Your task to perform on an android device: open the mobile data screen to see how much data has been used Image 0: 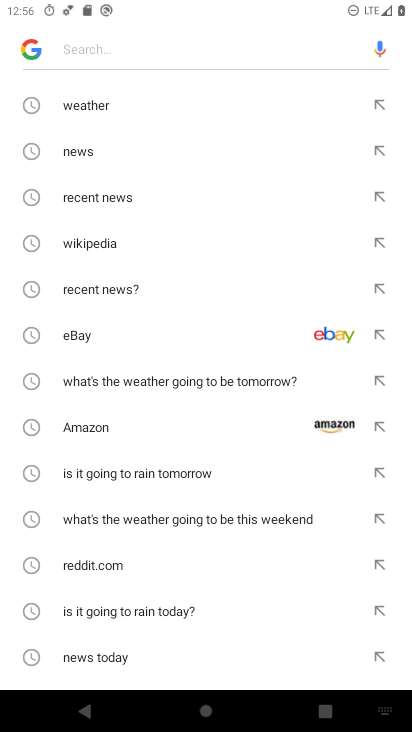
Step 0: press home button
Your task to perform on an android device: open the mobile data screen to see how much data has been used Image 1: 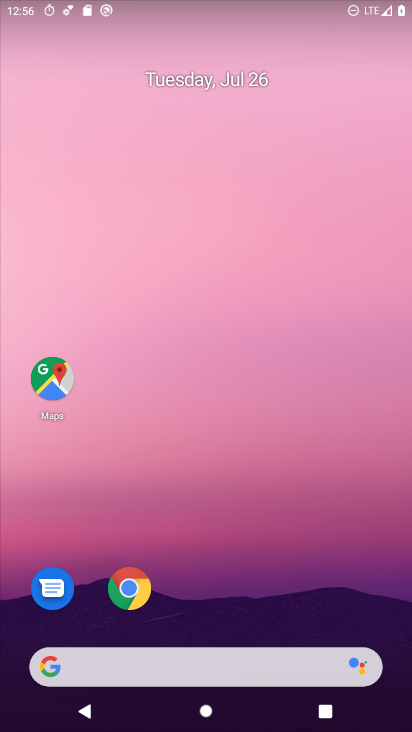
Step 1: drag from (272, 459) to (318, 109)
Your task to perform on an android device: open the mobile data screen to see how much data has been used Image 2: 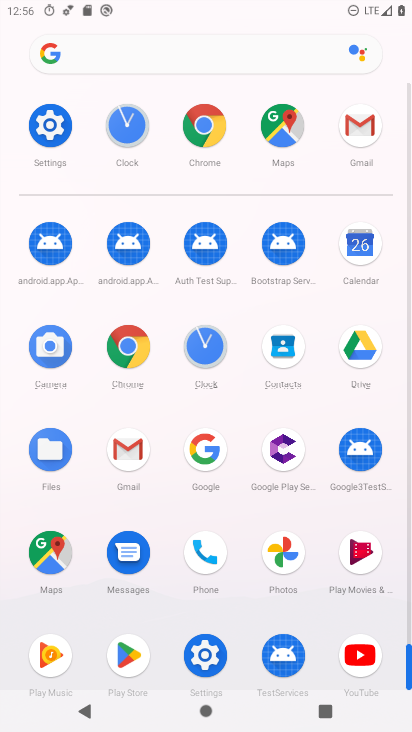
Step 2: click (203, 658)
Your task to perform on an android device: open the mobile data screen to see how much data has been used Image 3: 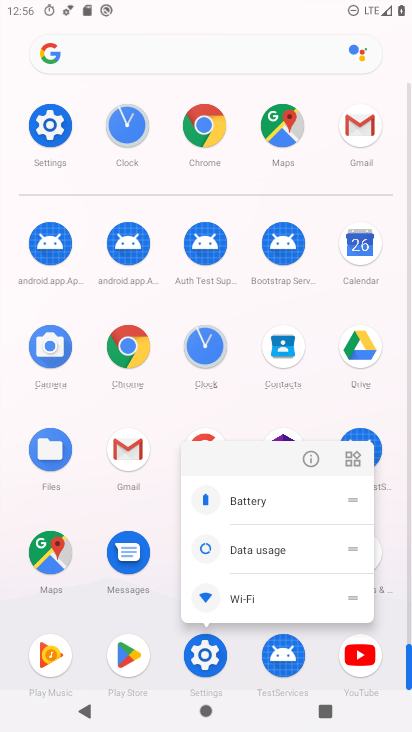
Step 3: click (203, 658)
Your task to perform on an android device: open the mobile data screen to see how much data has been used Image 4: 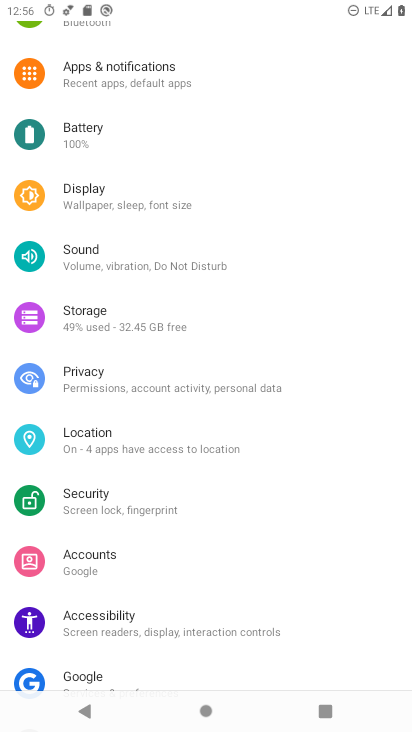
Step 4: drag from (251, 345) to (277, 578)
Your task to perform on an android device: open the mobile data screen to see how much data has been used Image 5: 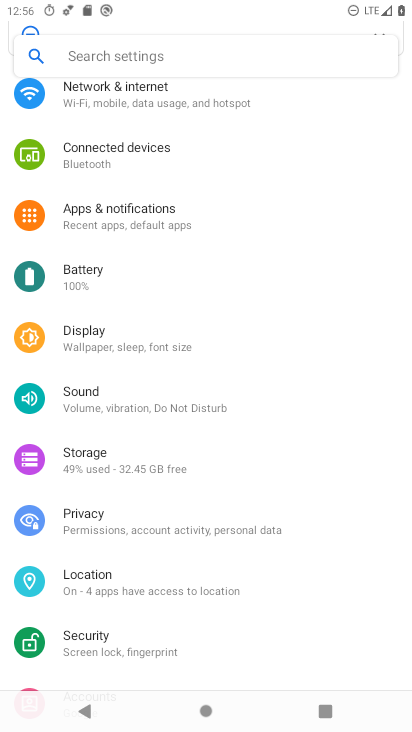
Step 5: drag from (221, 250) to (279, 472)
Your task to perform on an android device: open the mobile data screen to see how much data has been used Image 6: 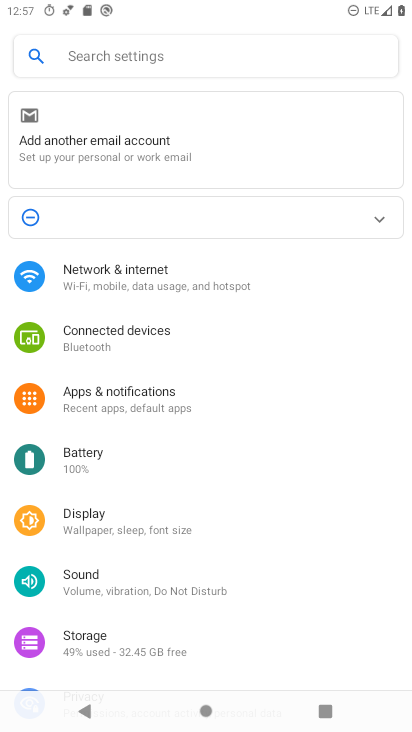
Step 6: drag from (216, 484) to (257, 435)
Your task to perform on an android device: open the mobile data screen to see how much data has been used Image 7: 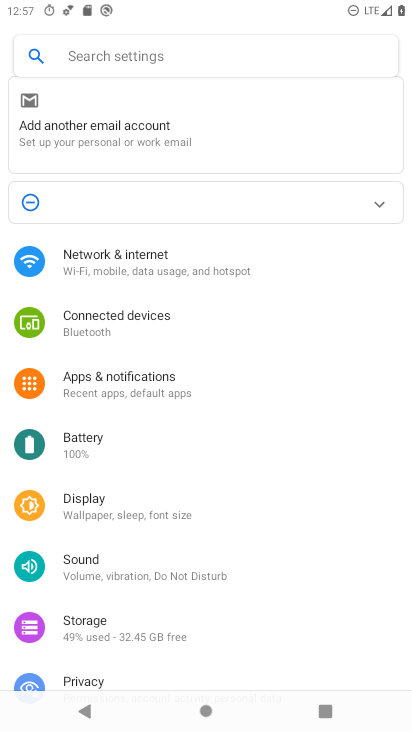
Step 7: click (204, 146)
Your task to perform on an android device: open the mobile data screen to see how much data has been used Image 8: 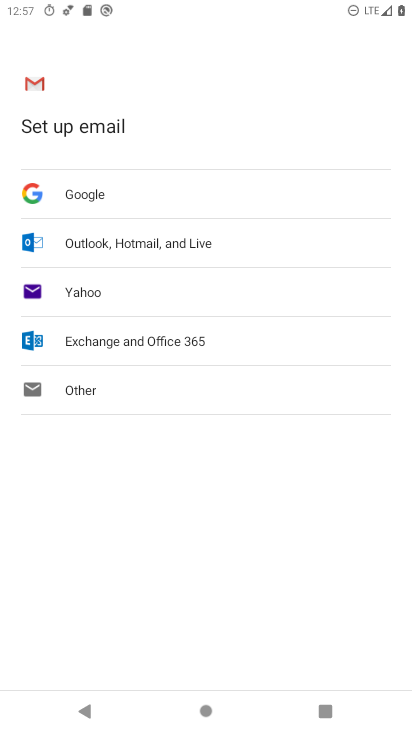
Step 8: press back button
Your task to perform on an android device: open the mobile data screen to see how much data has been used Image 9: 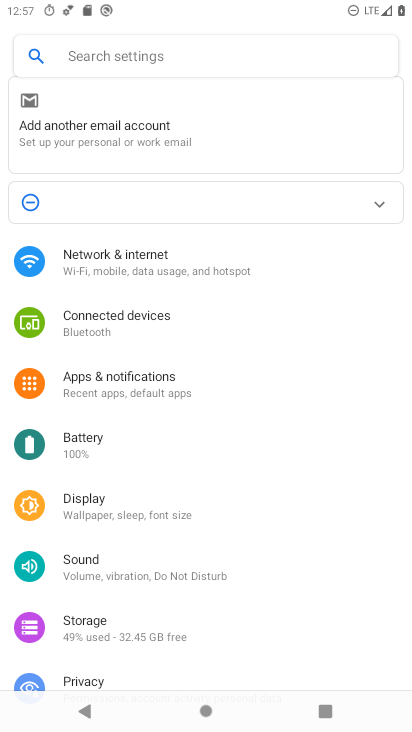
Step 9: click (245, 270)
Your task to perform on an android device: open the mobile data screen to see how much data has been used Image 10: 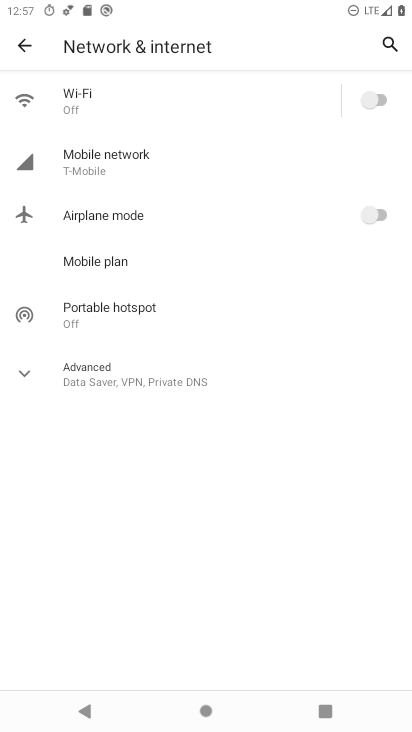
Step 10: click (205, 171)
Your task to perform on an android device: open the mobile data screen to see how much data has been used Image 11: 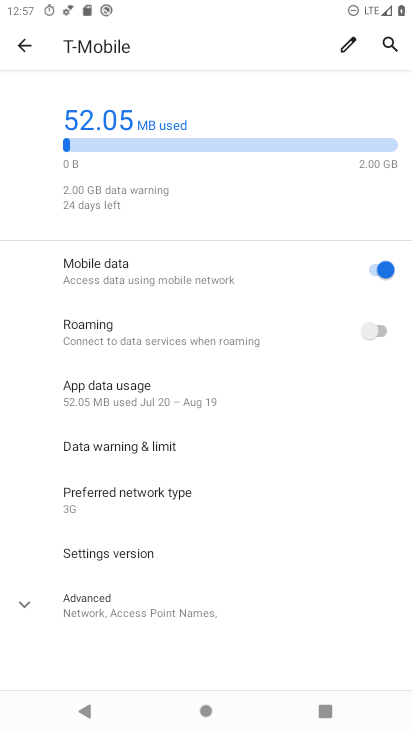
Step 11: click (163, 404)
Your task to perform on an android device: open the mobile data screen to see how much data has been used Image 12: 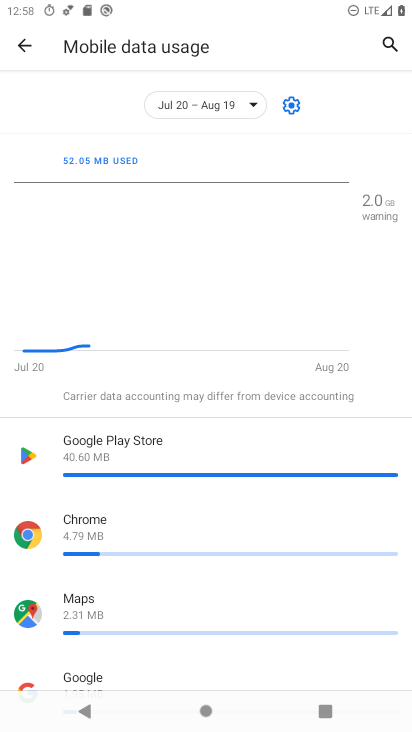
Step 12: task complete